Your task to perform on an android device: open app "Pluto TV - Live TV and Movies" Image 0: 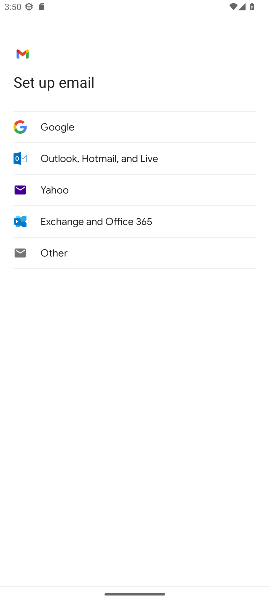
Step 0: press home button
Your task to perform on an android device: open app "Pluto TV - Live TV and Movies" Image 1: 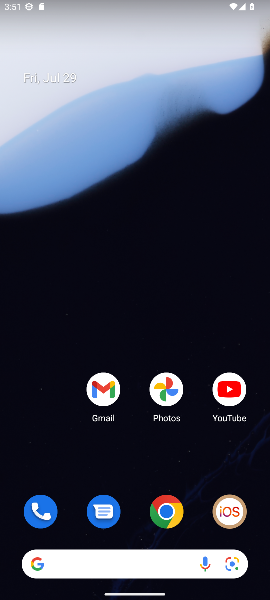
Step 1: drag from (97, 394) to (150, 112)
Your task to perform on an android device: open app "Pluto TV - Live TV and Movies" Image 2: 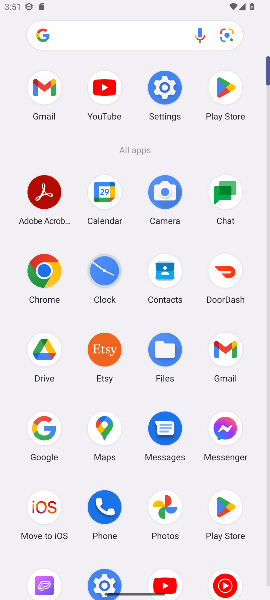
Step 2: click (221, 514)
Your task to perform on an android device: open app "Pluto TV - Live TV and Movies" Image 3: 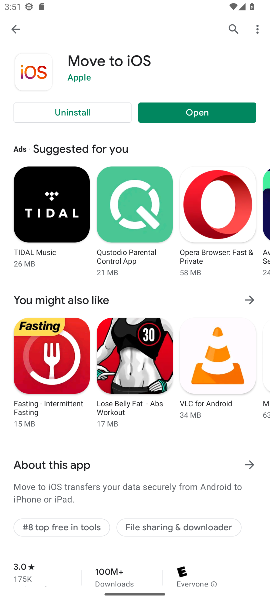
Step 3: click (12, 27)
Your task to perform on an android device: open app "Pluto TV - Live TV and Movies" Image 4: 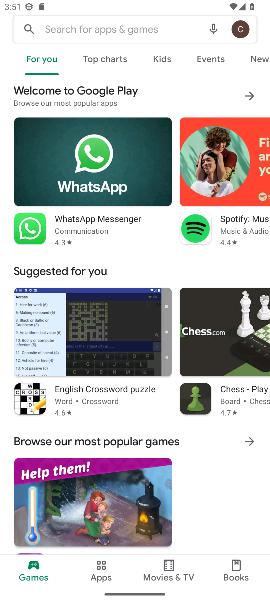
Step 4: click (58, 27)
Your task to perform on an android device: open app "Pluto TV - Live TV and Movies" Image 5: 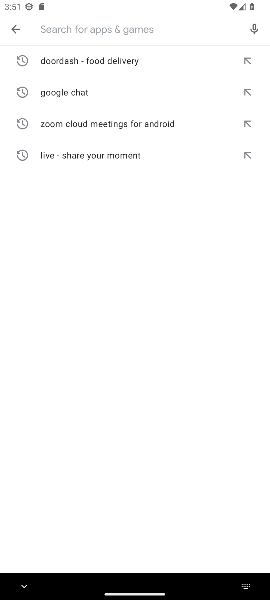
Step 5: type "Pluto TV - Live TV and Movies"
Your task to perform on an android device: open app "Pluto TV - Live TV and Movies" Image 6: 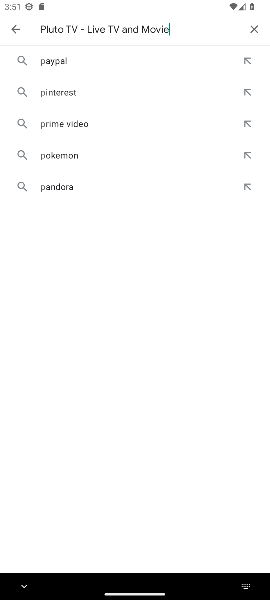
Step 6: type ""
Your task to perform on an android device: open app "Pluto TV - Live TV and Movies" Image 7: 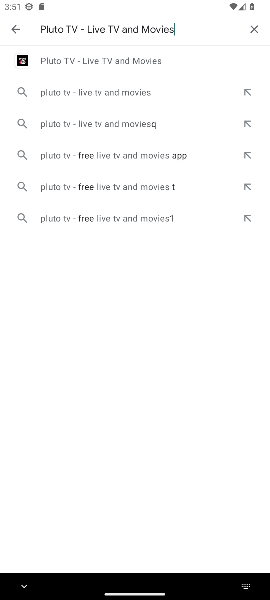
Step 7: click (98, 66)
Your task to perform on an android device: open app "Pluto TV - Live TV and Movies" Image 8: 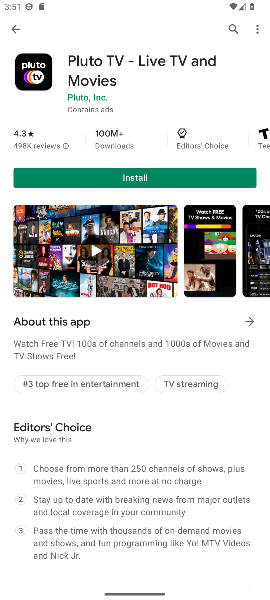
Step 8: click (77, 171)
Your task to perform on an android device: open app "Pluto TV - Live TV and Movies" Image 9: 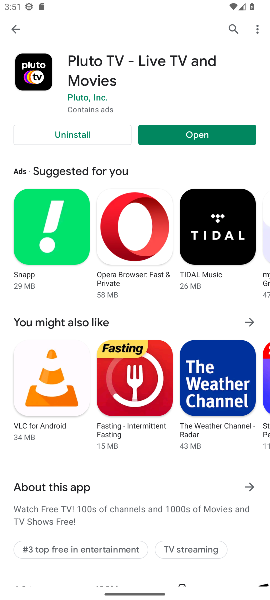
Step 9: task complete